Your task to perform on an android device: See recent photos Image 0: 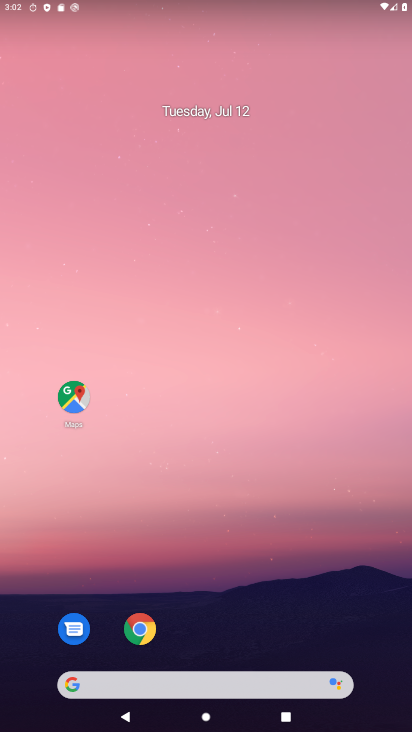
Step 0: drag from (226, 618) to (296, 119)
Your task to perform on an android device: See recent photos Image 1: 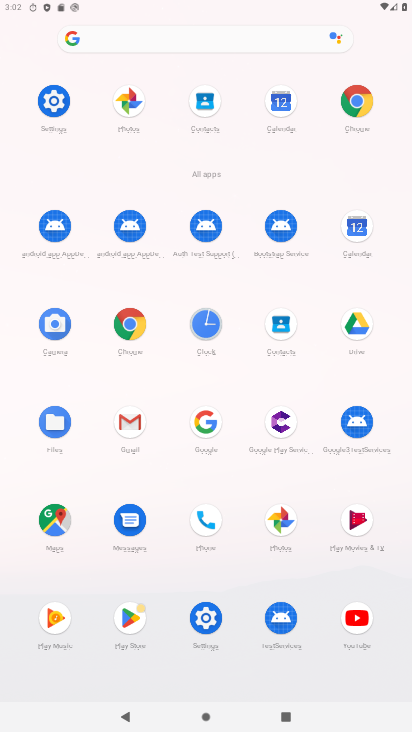
Step 1: click (281, 527)
Your task to perform on an android device: See recent photos Image 2: 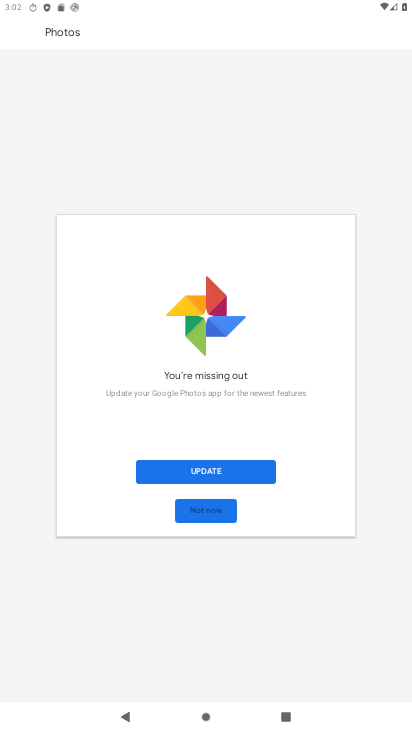
Step 2: click (209, 470)
Your task to perform on an android device: See recent photos Image 3: 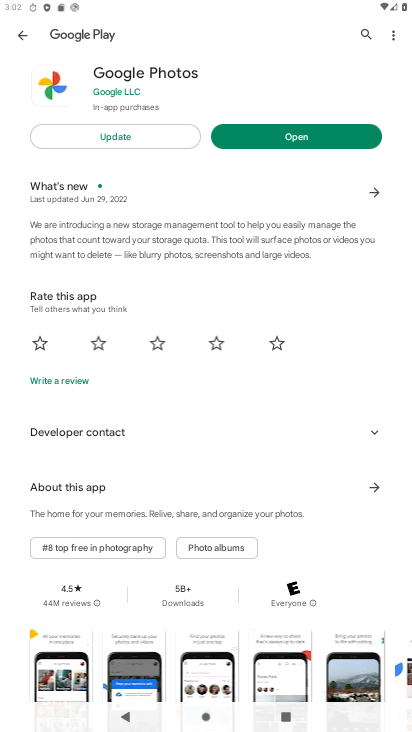
Step 3: click (130, 136)
Your task to perform on an android device: See recent photos Image 4: 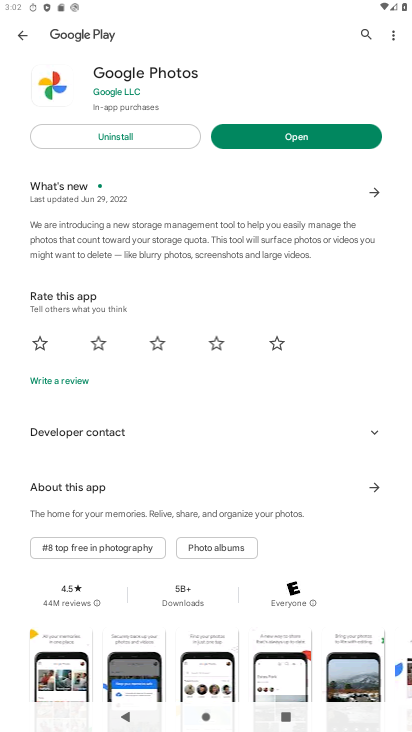
Step 4: click (319, 142)
Your task to perform on an android device: See recent photos Image 5: 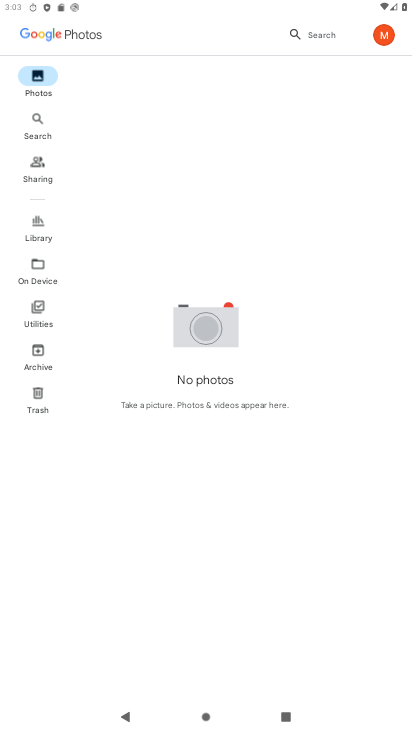
Step 5: task complete